Your task to perform on an android device: turn pop-ups on in chrome Image 0: 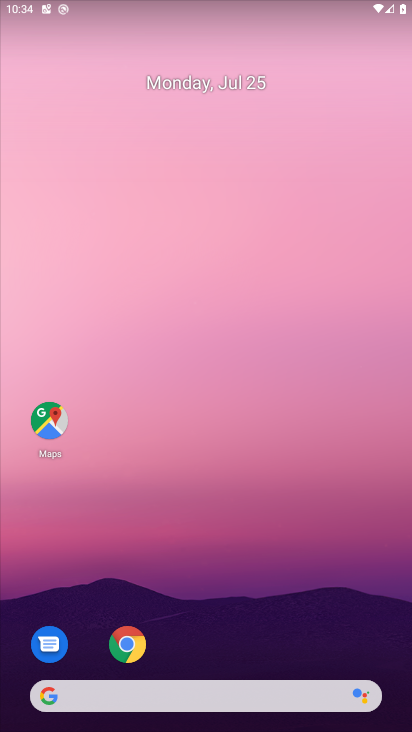
Step 0: press home button
Your task to perform on an android device: turn pop-ups on in chrome Image 1: 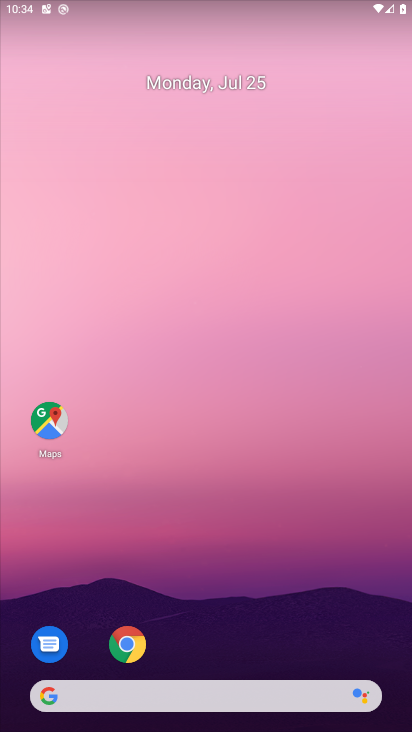
Step 1: click (356, 55)
Your task to perform on an android device: turn pop-ups on in chrome Image 2: 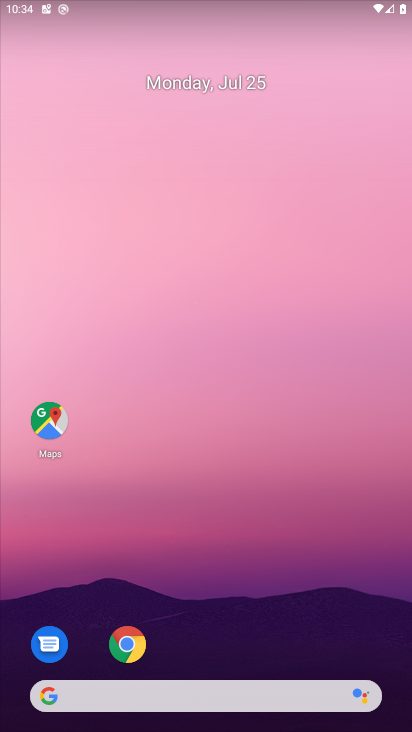
Step 2: drag from (391, 716) to (286, 262)
Your task to perform on an android device: turn pop-ups on in chrome Image 3: 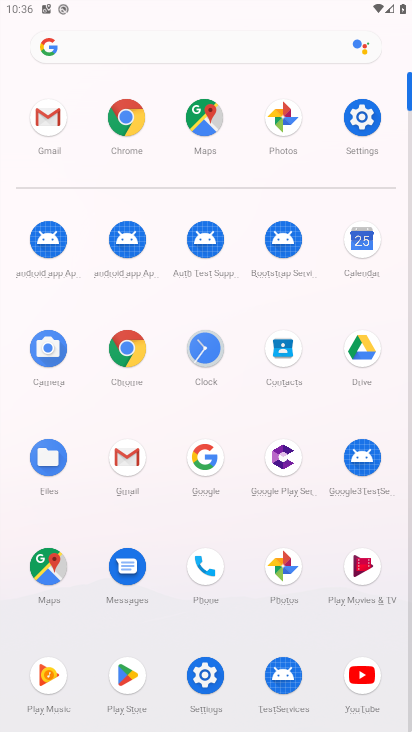
Step 3: click (141, 351)
Your task to perform on an android device: turn pop-ups on in chrome Image 4: 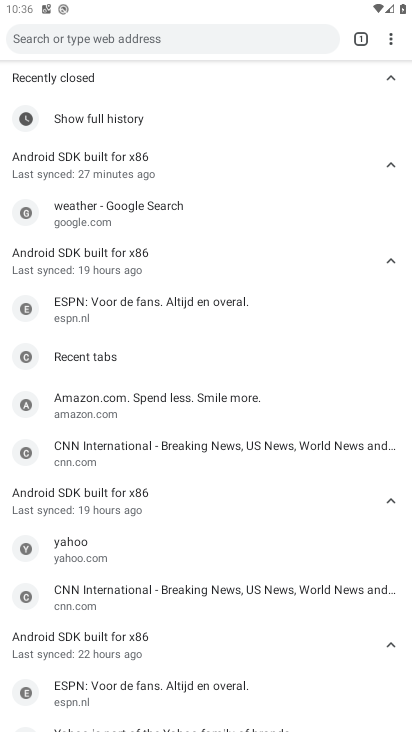
Step 4: drag from (388, 31) to (280, 327)
Your task to perform on an android device: turn pop-ups on in chrome Image 5: 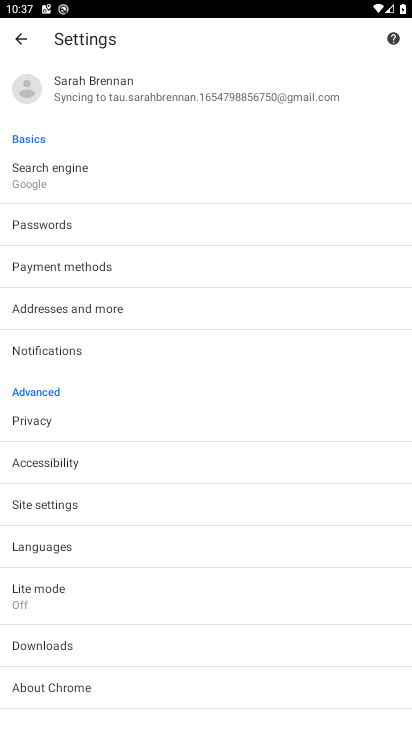
Step 5: click (35, 494)
Your task to perform on an android device: turn pop-ups on in chrome Image 6: 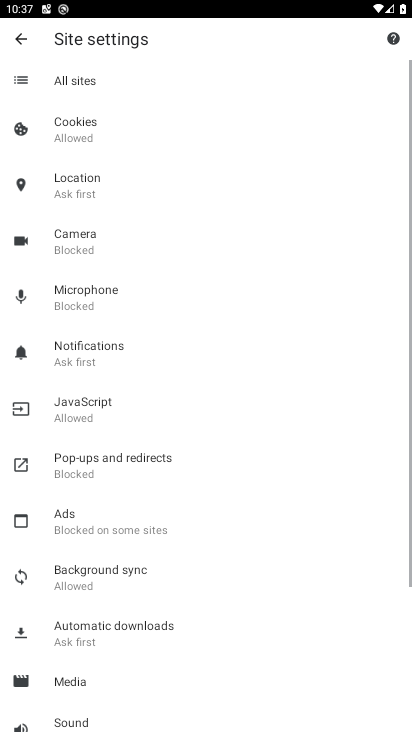
Step 6: click (29, 479)
Your task to perform on an android device: turn pop-ups on in chrome Image 7: 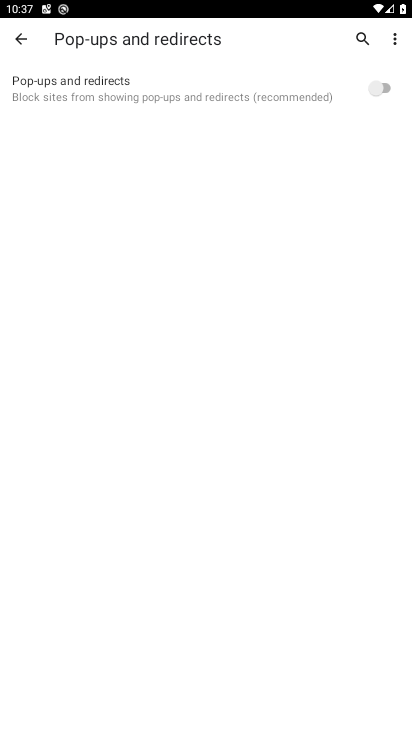
Step 7: click (255, 96)
Your task to perform on an android device: turn pop-ups on in chrome Image 8: 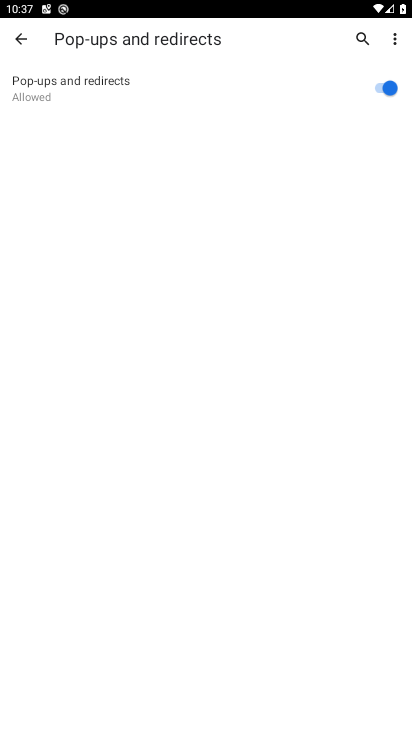
Step 8: task complete